Your task to perform on an android device: Open the web browser Image 0: 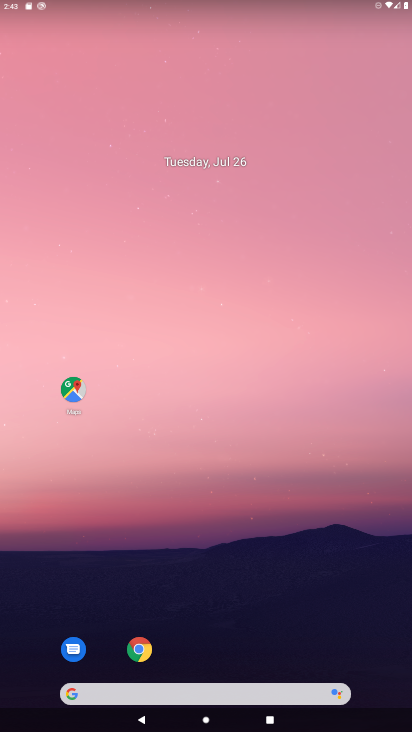
Step 0: click (144, 643)
Your task to perform on an android device: Open the web browser Image 1: 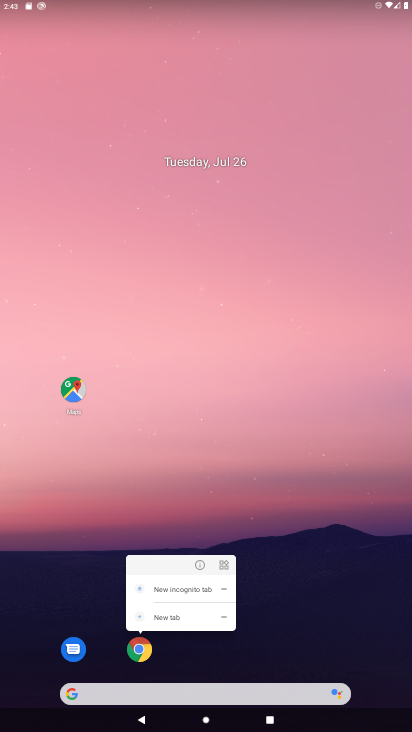
Step 1: click (144, 643)
Your task to perform on an android device: Open the web browser Image 2: 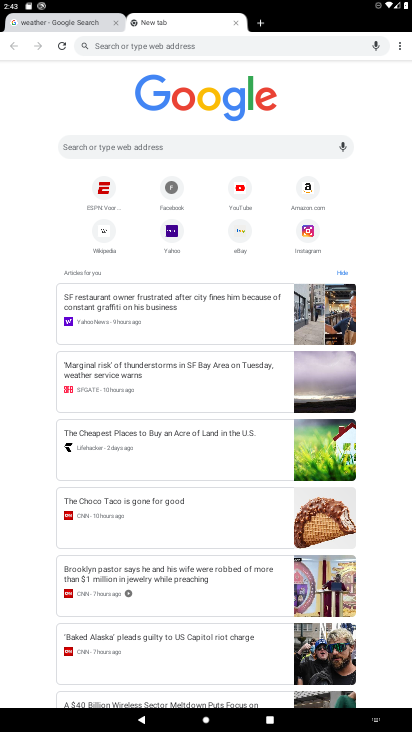
Step 2: task complete